Your task to perform on an android device: What is the recent news? Image 0: 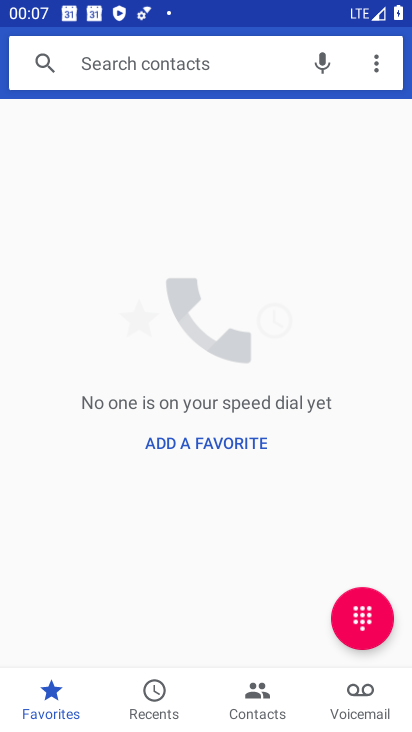
Step 0: press home button
Your task to perform on an android device: What is the recent news? Image 1: 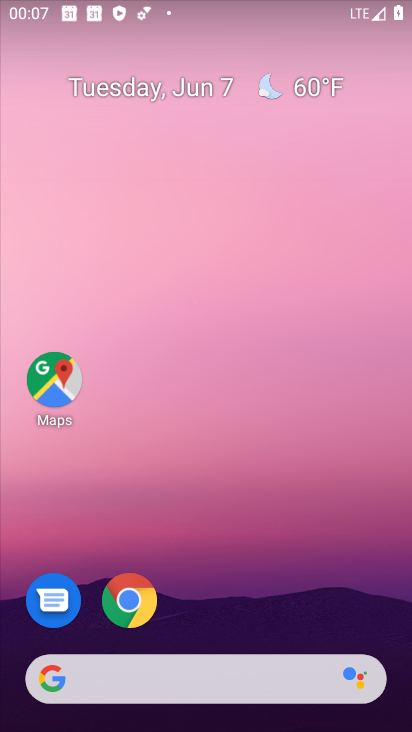
Step 1: task complete